Your task to perform on an android device: visit the assistant section in the google photos Image 0: 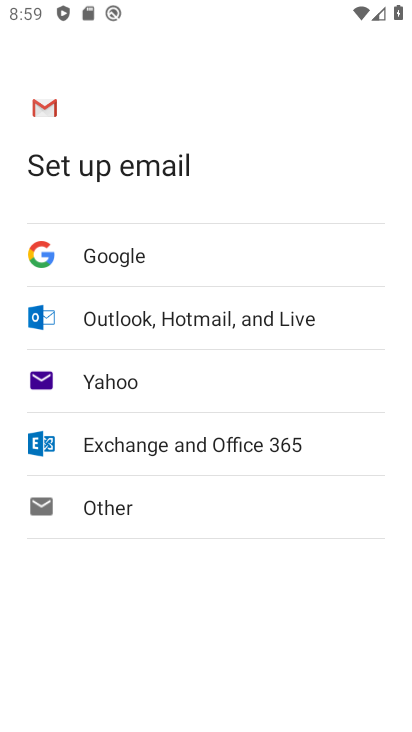
Step 0: press home button
Your task to perform on an android device: visit the assistant section in the google photos Image 1: 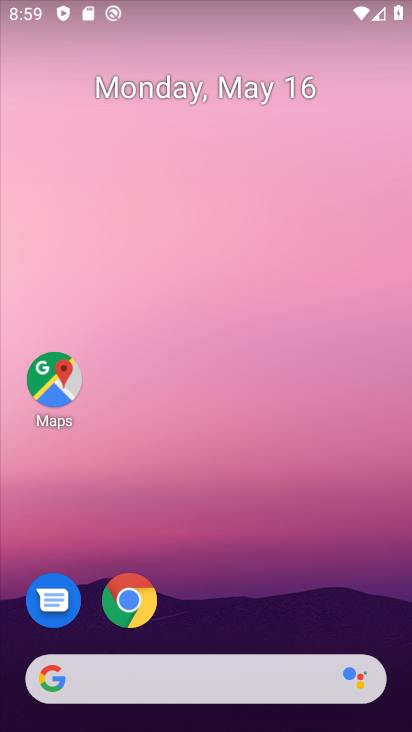
Step 1: drag from (186, 617) to (209, 126)
Your task to perform on an android device: visit the assistant section in the google photos Image 2: 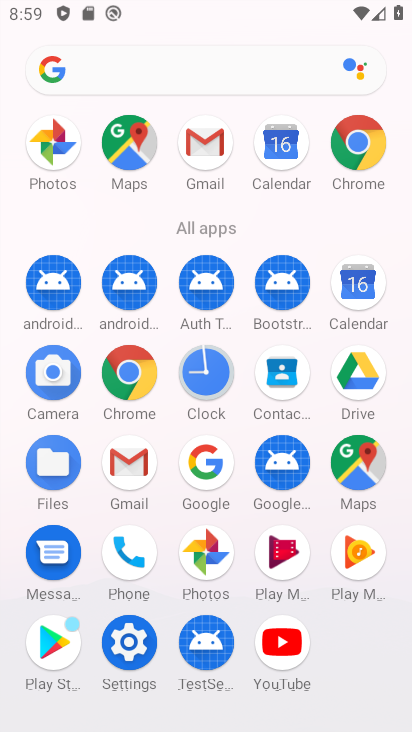
Step 2: click (210, 561)
Your task to perform on an android device: visit the assistant section in the google photos Image 3: 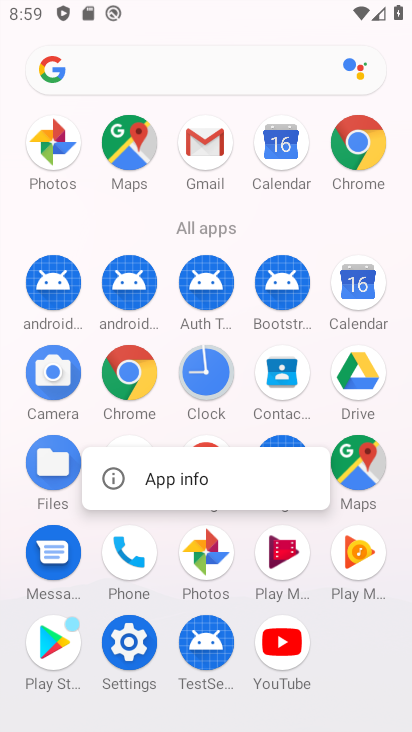
Step 3: click (206, 561)
Your task to perform on an android device: visit the assistant section in the google photos Image 4: 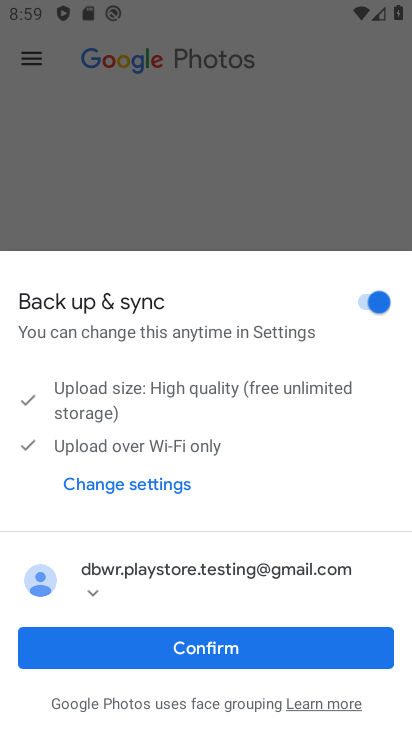
Step 4: click (196, 647)
Your task to perform on an android device: visit the assistant section in the google photos Image 5: 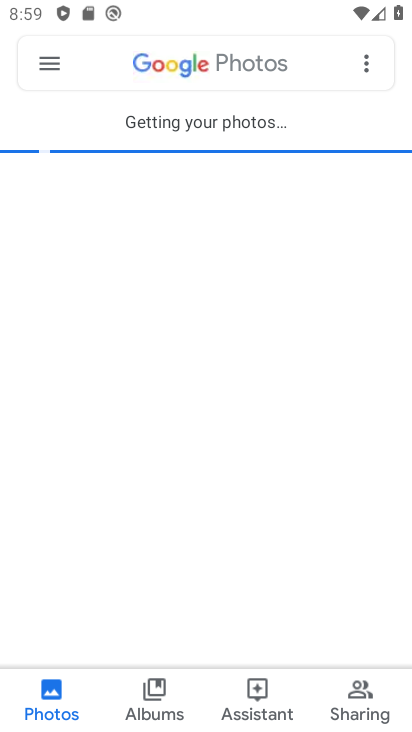
Step 5: click (37, 67)
Your task to perform on an android device: visit the assistant section in the google photos Image 6: 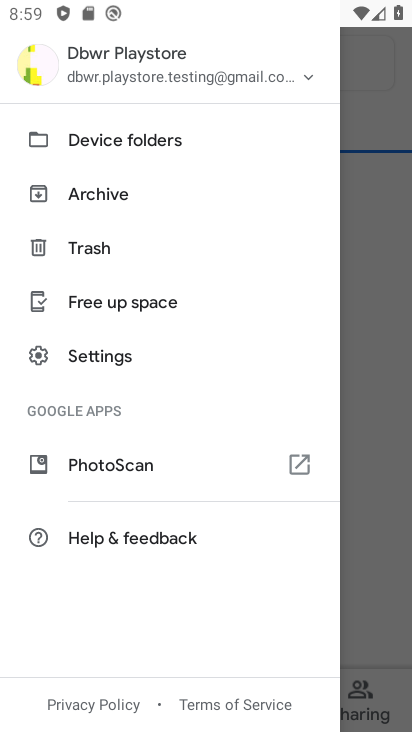
Step 6: press back button
Your task to perform on an android device: visit the assistant section in the google photos Image 7: 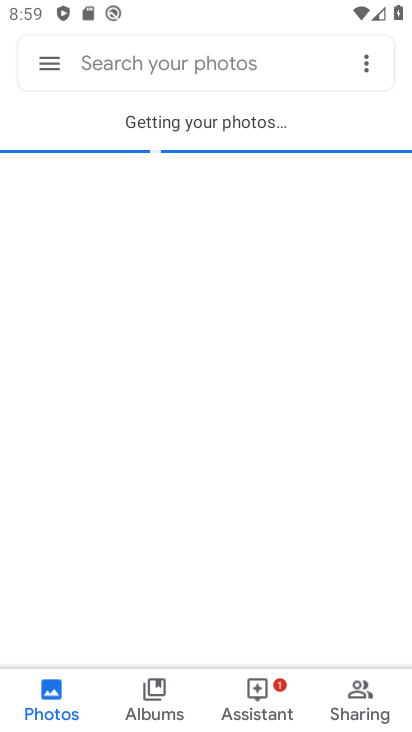
Step 7: click (253, 704)
Your task to perform on an android device: visit the assistant section in the google photos Image 8: 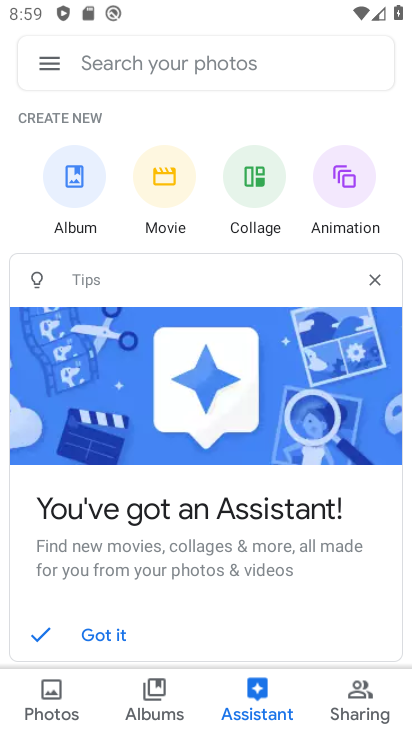
Step 8: task complete